Your task to perform on an android device: toggle wifi Image 0: 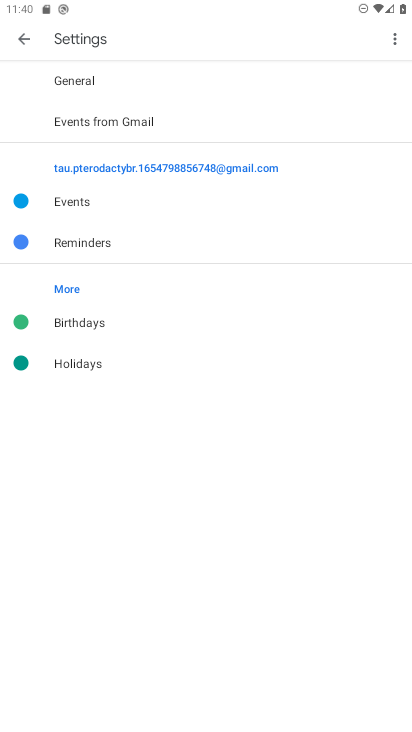
Step 0: press home button
Your task to perform on an android device: toggle wifi Image 1: 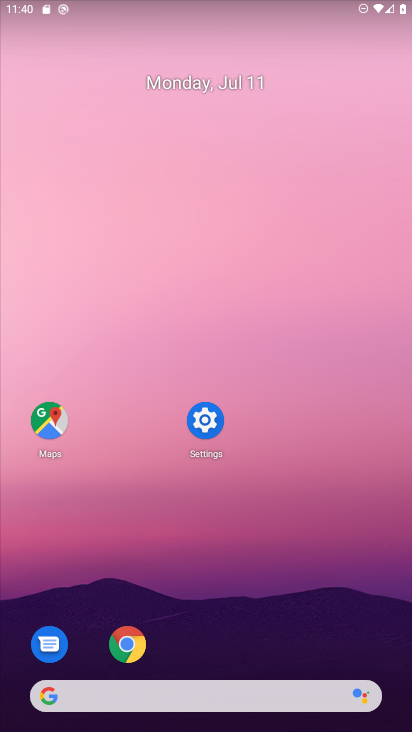
Step 1: click (201, 409)
Your task to perform on an android device: toggle wifi Image 2: 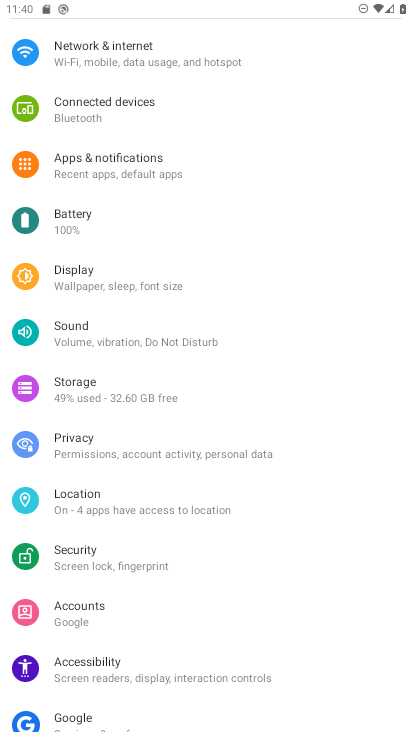
Step 2: click (122, 54)
Your task to perform on an android device: toggle wifi Image 3: 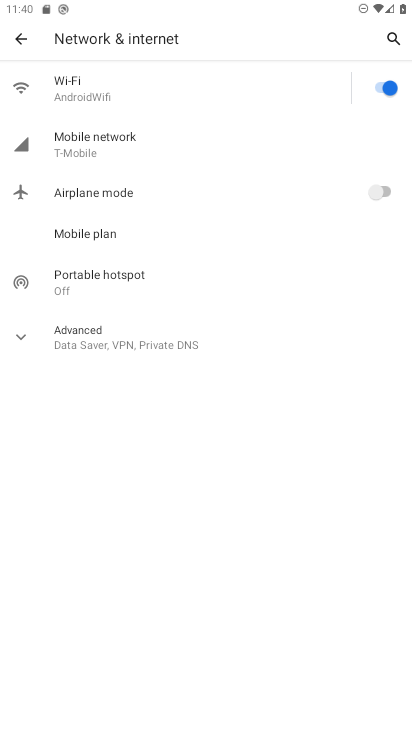
Step 3: click (138, 83)
Your task to perform on an android device: toggle wifi Image 4: 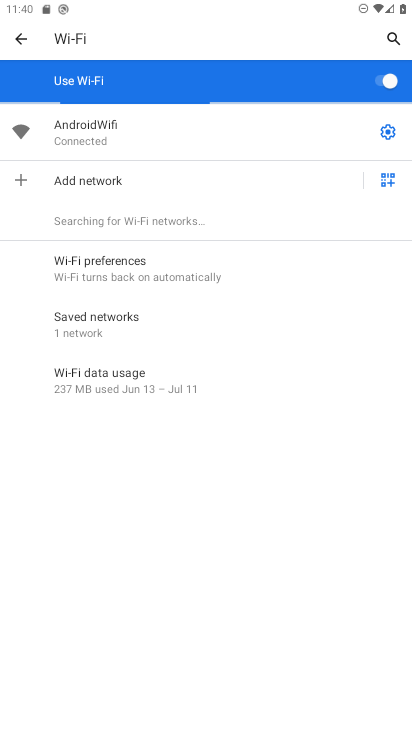
Step 4: click (380, 75)
Your task to perform on an android device: toggle wifi Image 5: 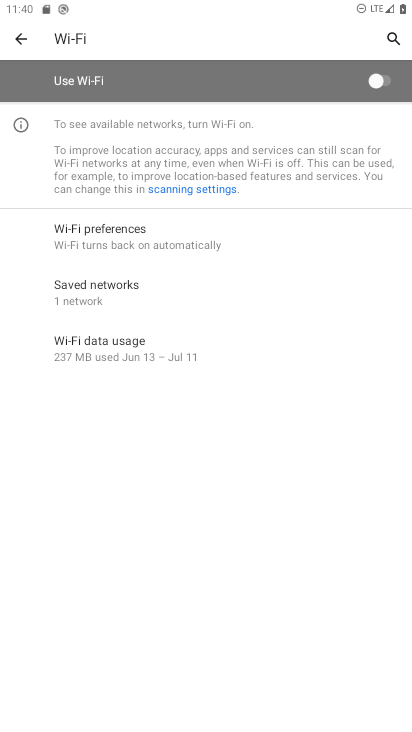
Step 5: task complete